Your task to perform on an android device: add a contact in the contacts app Image 0: 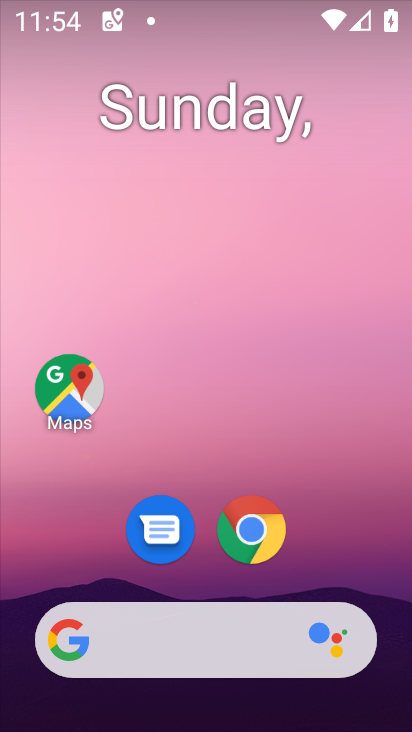
Step 0: drag from (384, 603) to (379, 252)
Your task to perform on an android device: add a contact in the contacts app Image 1: 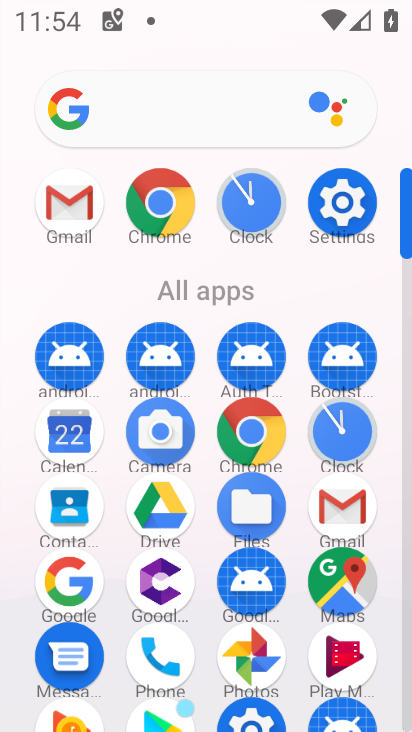
Step 1: click (75, 513)
Your task to perform on an android device: add a contact in the contacts app Image 2: 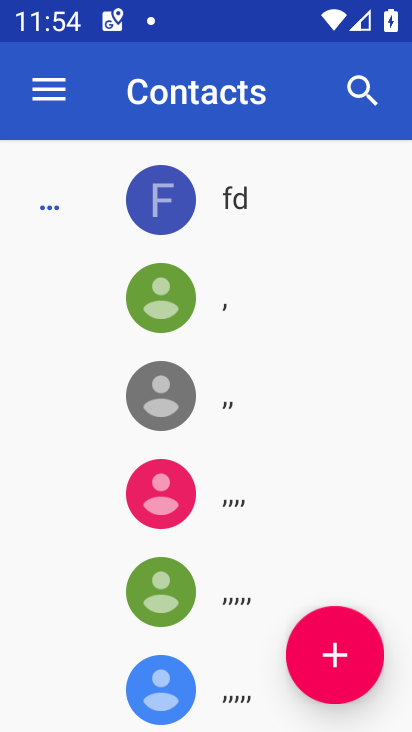
Step 2: click (355, 678)
Your task to perform on an android device: add a contact in the contacts app Image 3: 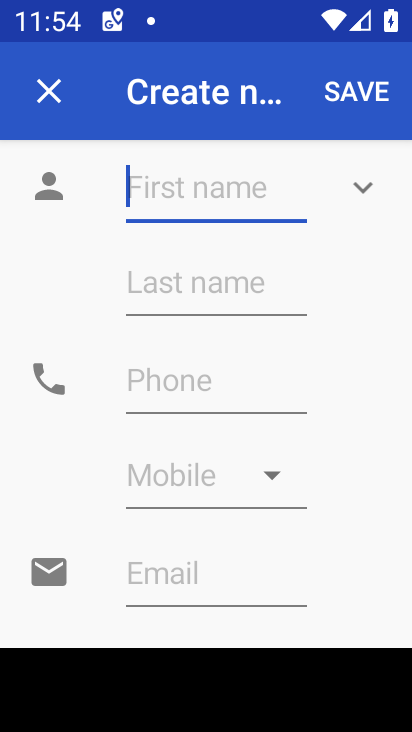
Step 3: click (226, 202)
Your task to perform on an android device: add a contact in the contacts app Image 4: 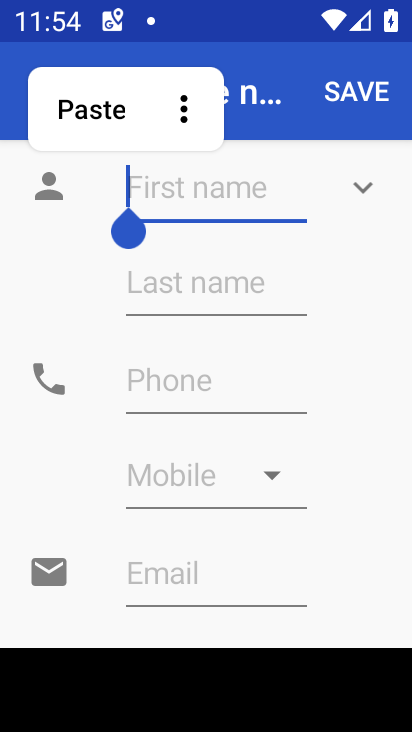
Step 4: type "me"
Your task to perform on an android device: add a contact in the contacts app Image 5: 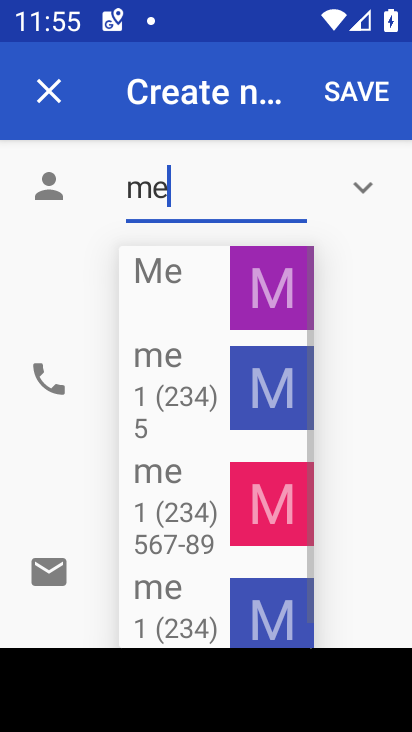
Step 5: click (315, 320)
Your task to perform on an android device: add a contact in the contacts app Image 6: 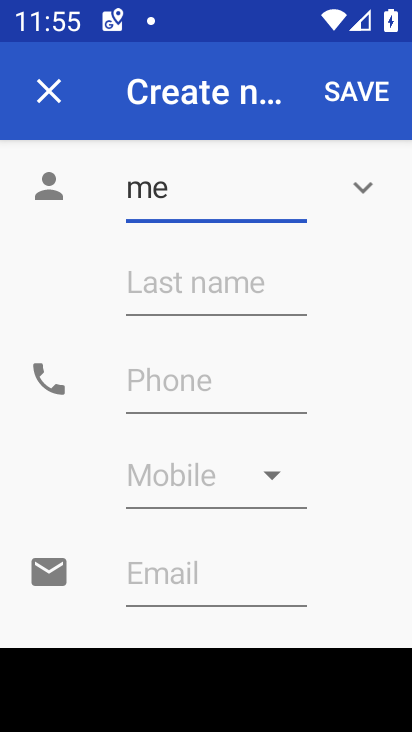
Step 6: click (239, 400)
Your task to perform on an android device: add a contact in the contacts app Image 7: 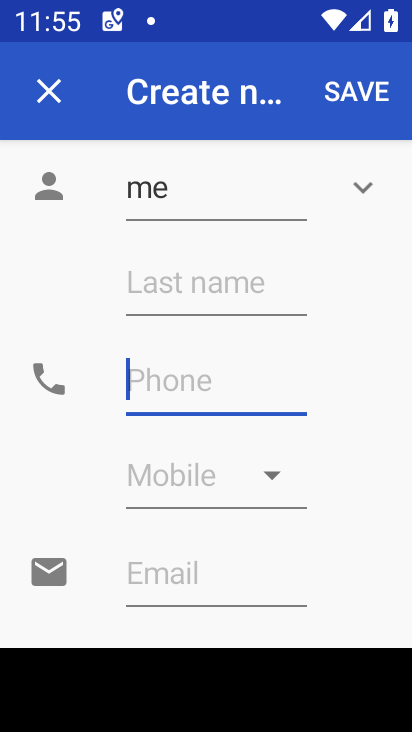
Step 7: type "1234567"
Your task to perform on an android device: add a contact in the contacts app Image 8: 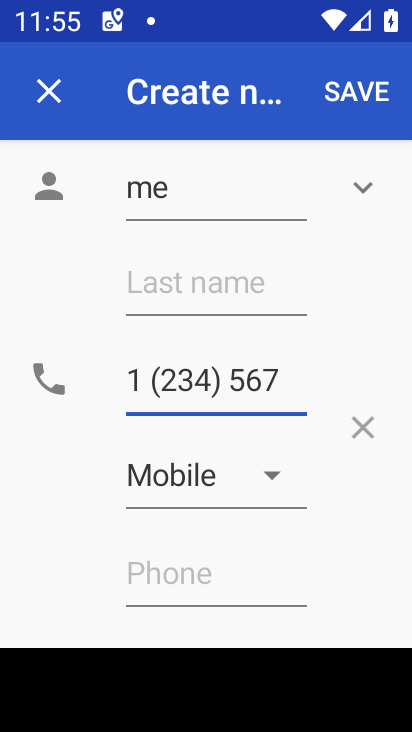
Step 8: click (358, 127)
Your task to perform on an android device: add a contact in the contacts app Image 9: 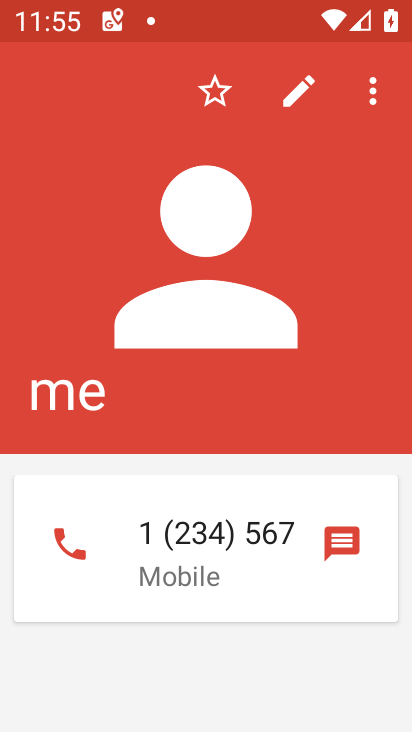
Step 9: task complete